Your task to perform on an android device: open app "Google Maps" (install if not already installed) Image 0: 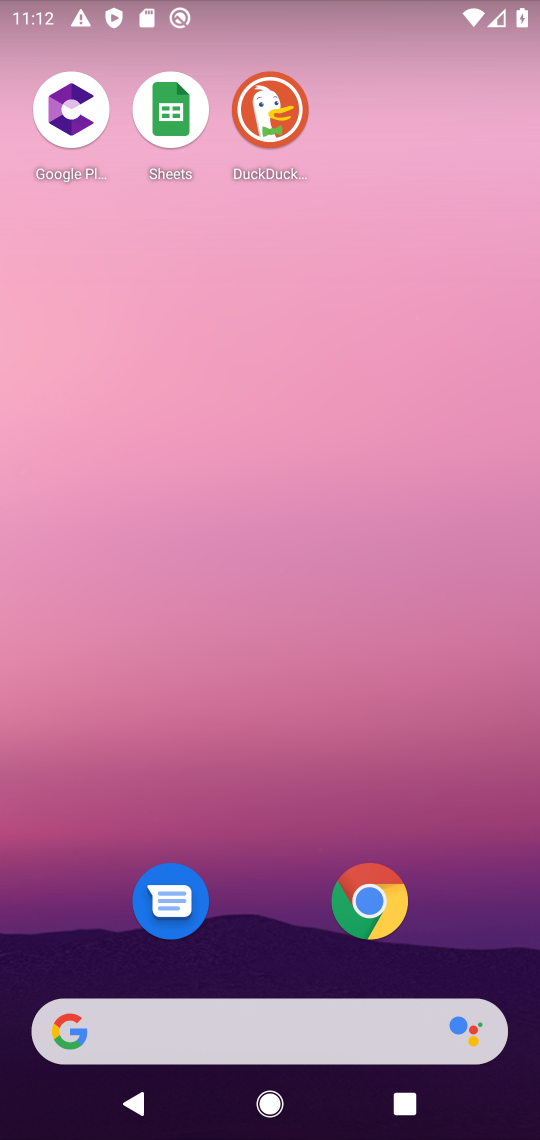
Step 0: drag from (267, 982) to (248, 55)
Your task to perform on an android device: open app "Google Maps" (install if not already installed) Image 1: 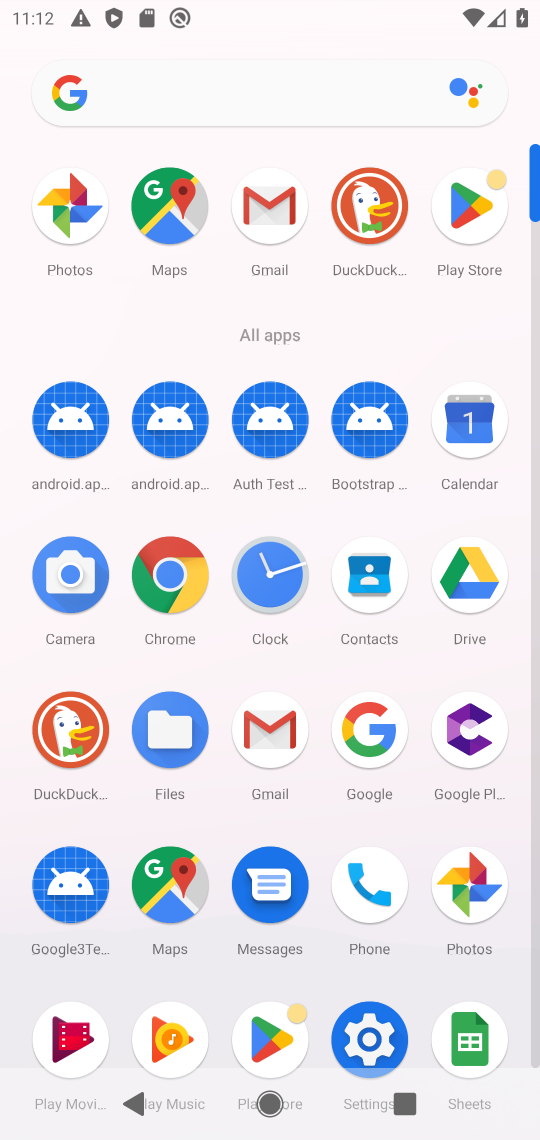
Step 1: click (173, 869)
Your task to perform on an android device: open app "Google Maps" (install if not already installed) Image 2: 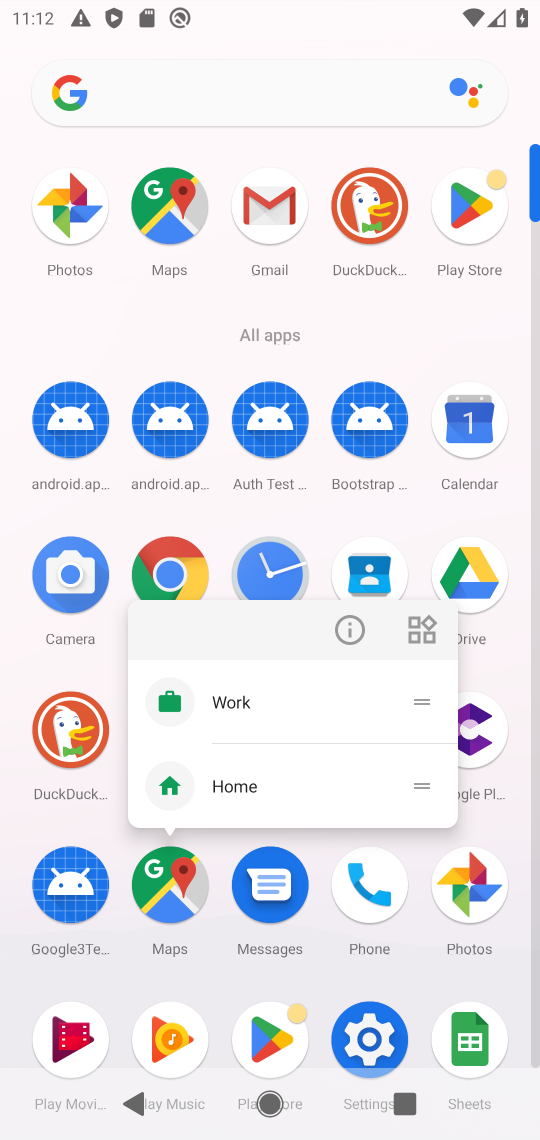
Step 2: click (175, 881)
Your task to perform on an android device: open app "Google Maps" (install if not already installed) Image 3: 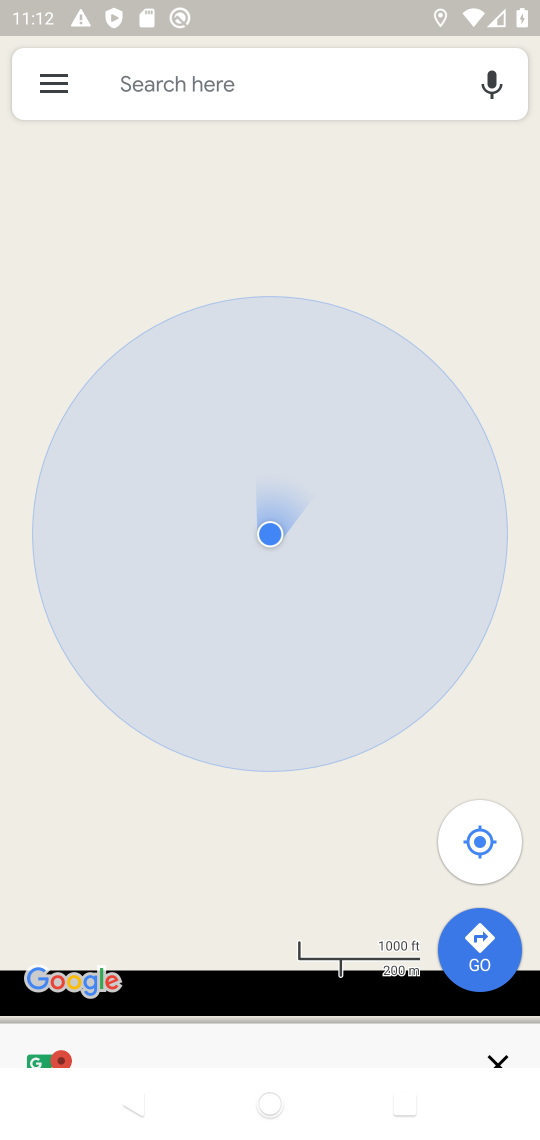
Step 3: task complete